Your task to perform on an android device: add a contact Image 0: 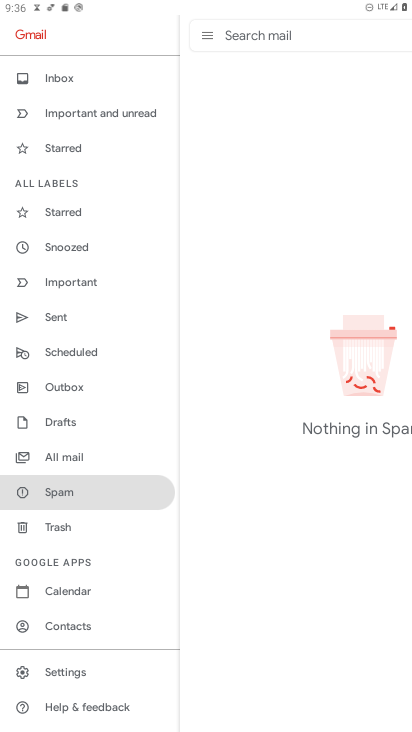
Step 0: press home button
Your task to perform on an android device: add a contact Image 1: 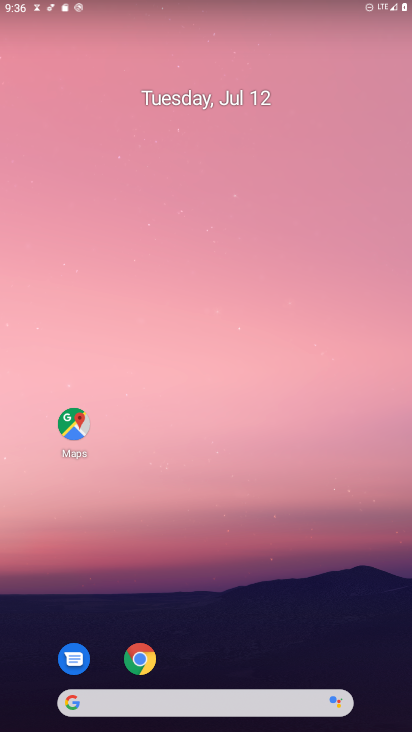
Step 1: drag from (219, 702) to (206, 184)
Your task to perform on an android device: add a contact Image 2: 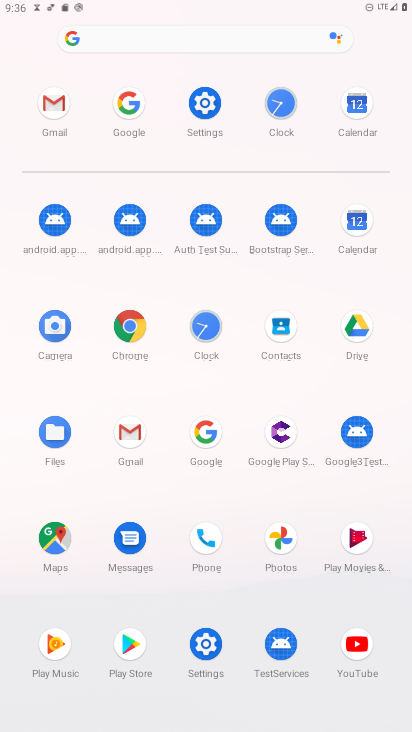
Step 2: click (282, 328)
Your task to perform on an android device: add a contact Image 3: 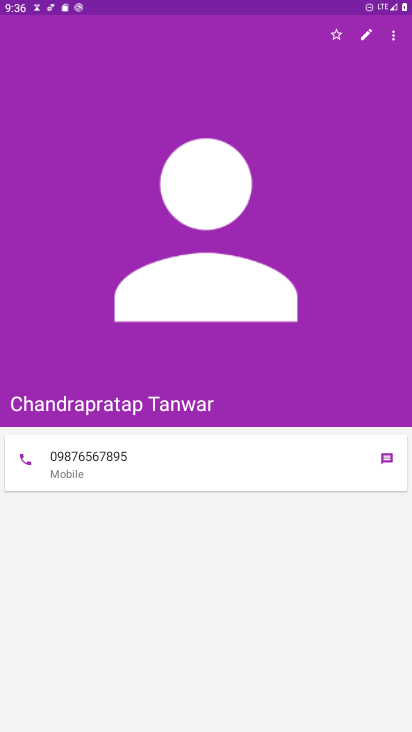
Step 3: press back button
Your task to perform on an android device: add a contact Image 4: 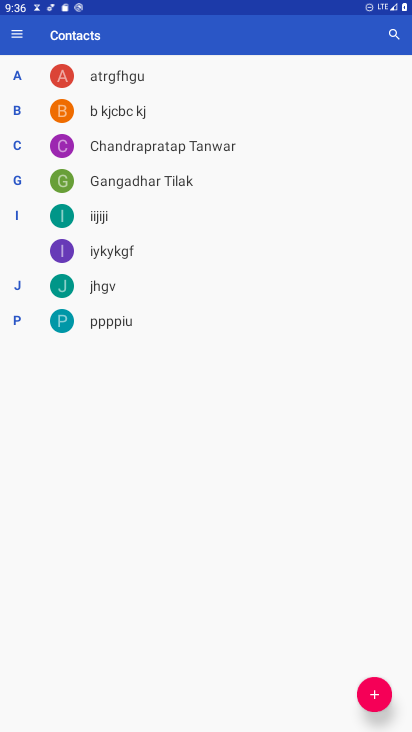
Step 4: click (378, 695)
Your task to perform on an android device: add a contact Image 5: 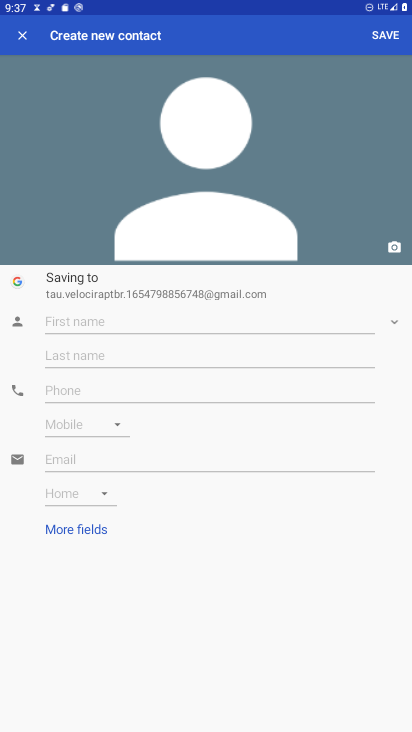
Step 5: click (150, 315)
Your task to perform on an android device: add a contact Image 6: 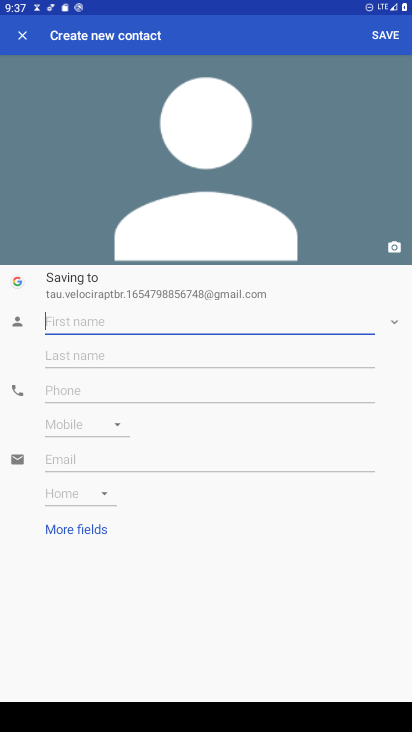
Step 6: type "Satyanarayan"
Your task to perform on an android device: add a contact Image 7: 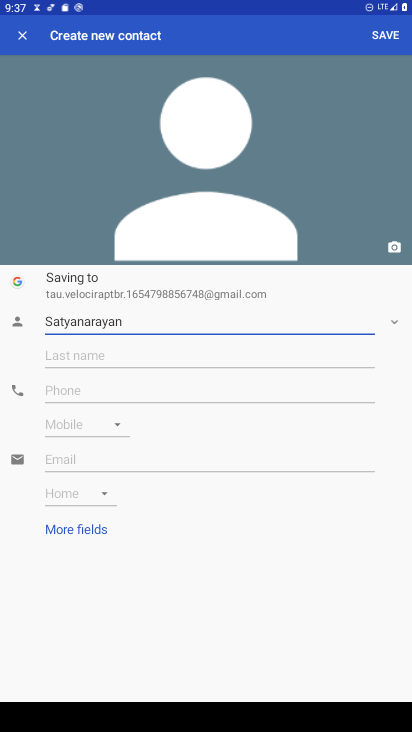
Step 7: click (181, 354)
Your task to perform on an android device: add a contact Image 8: 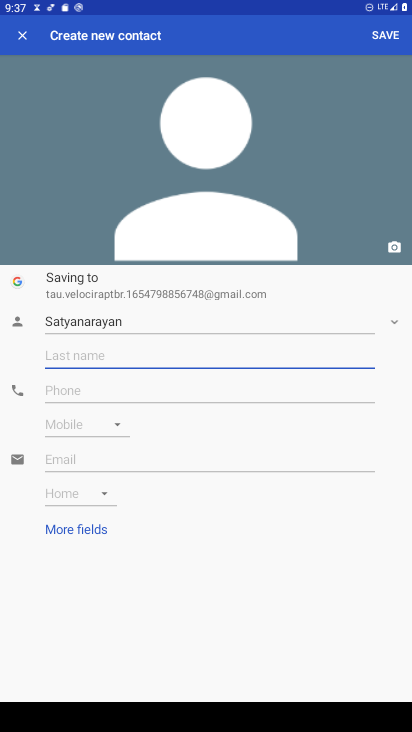
Step 8: type "Jatiya"
Your task to perform on an android device: add a contact Image 9: 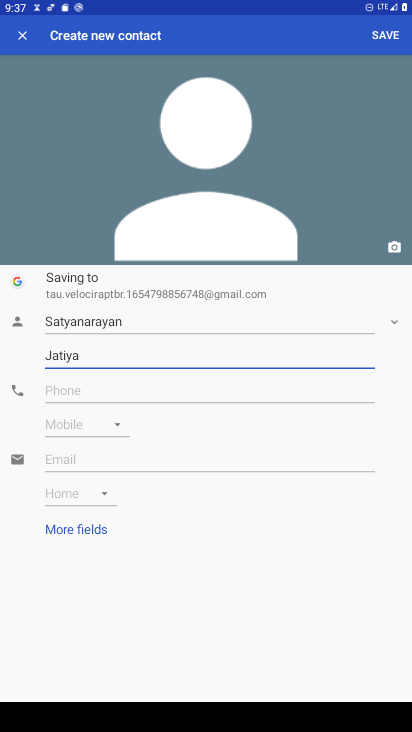
Step 9: click (209, 392)
Your task to perform on an android device: add a contact Image 10: 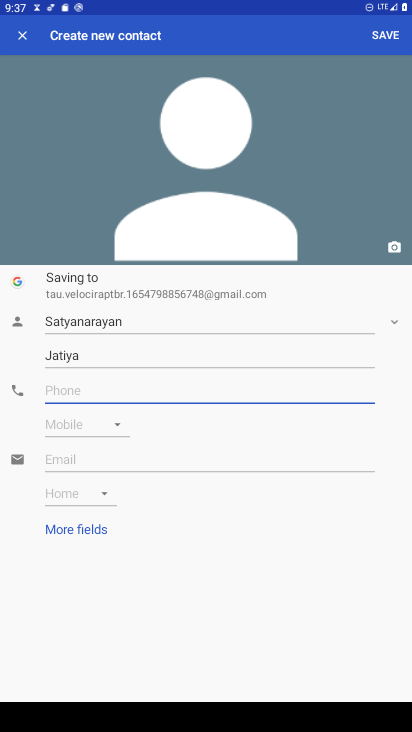
Step 10: type "09876548796"
Your task to perform on an android device: add a contact Image 11: 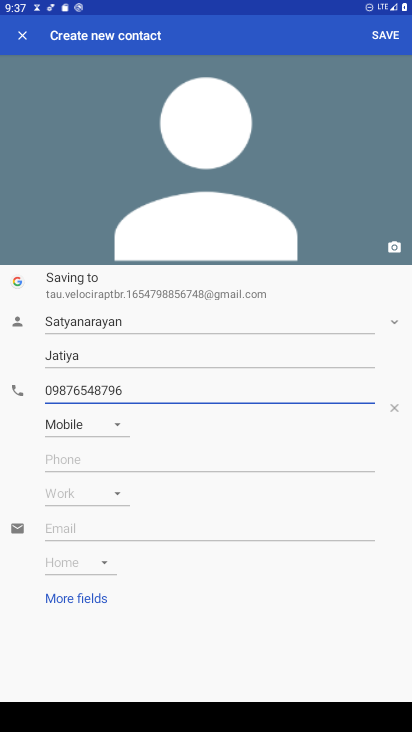
Step 11: click (384, 36)
Your task to perform on an android device: add a contact Image 12: 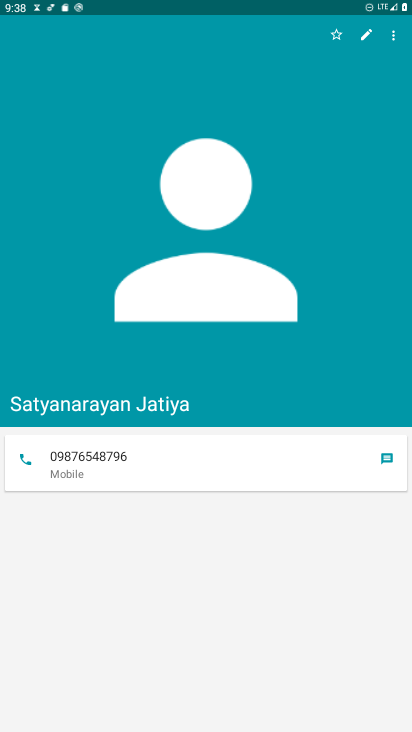
Step 12: task complete